Your task to perform on an android device: turn off javascript in the chrome app Image 0: 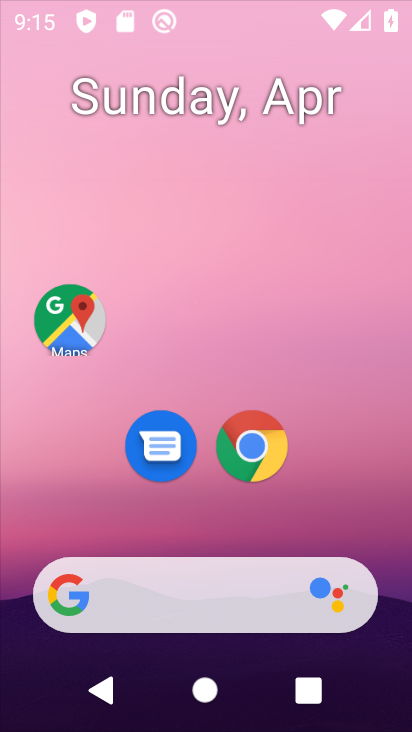
Step 0: click (288, 74)
Your task to perform on an android device: turn off javascript in the chrome app Image 1: 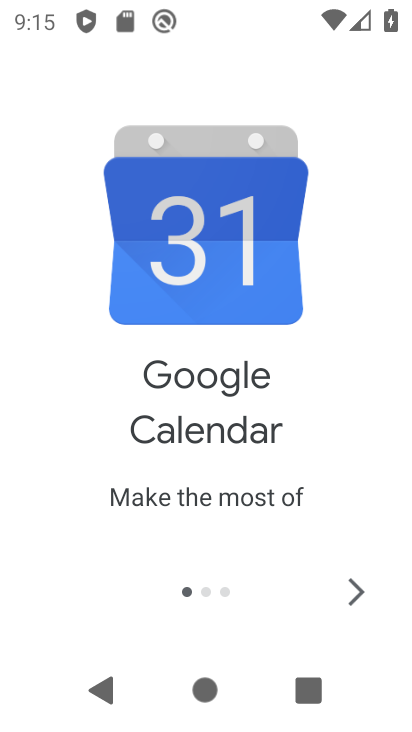
Step 1: click (353, 581)
Your task to perform on an android device: turn off javascript in the chrome app Image 2: 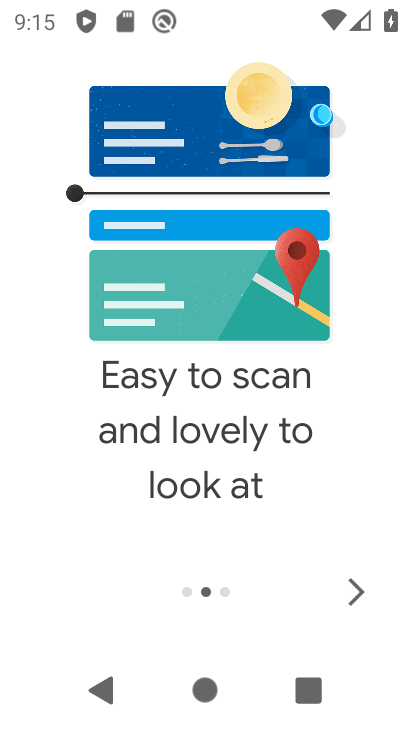
Step 2: click (353, 581)
Your task to perform on an android device: turn off javascript in the chrome app Image 3: 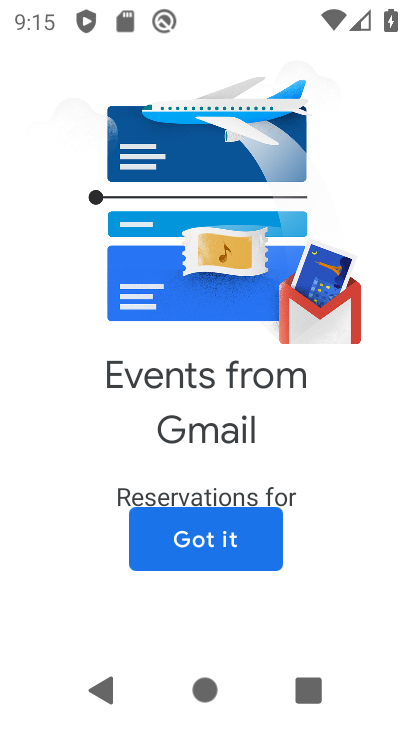
Step 3: press home button
Your task to perform on an android device: turn off javascript in the chrome app Image 4: 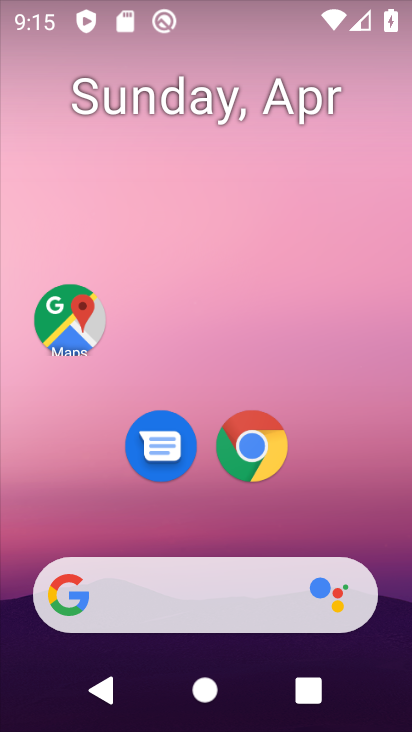
Step 4: click (263, 446)
Your task to perform on an android device: turn off javascript in the chrome app Image 5: 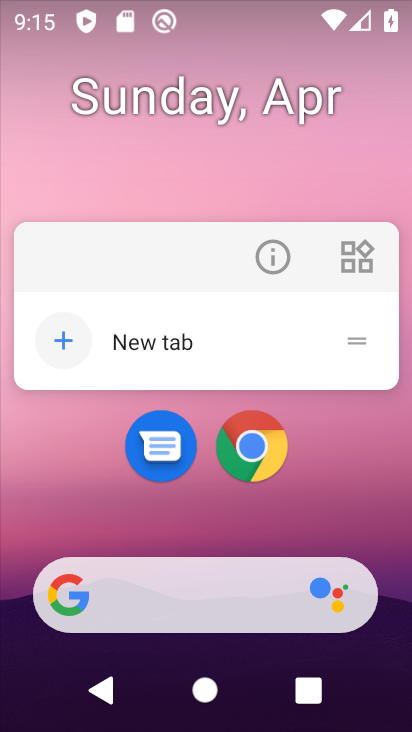
Step 5: click (277, 268)
Your task to perform on an android device: turn off javascript in the chrome app Image 6: 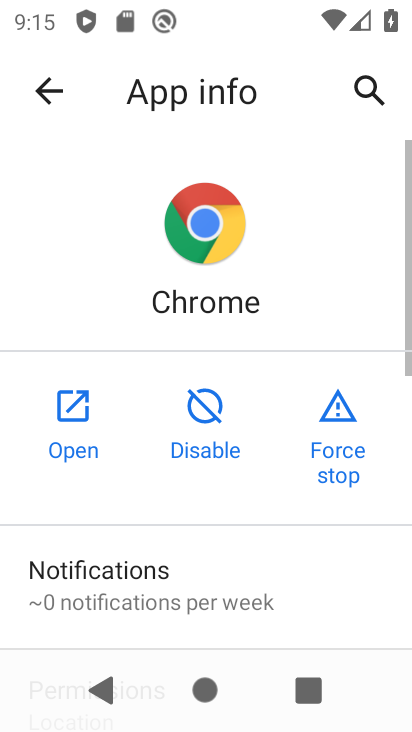
Step 6: click (69, 422)
Your task to perform on an android device: turn off javascript in the chrome app Image 7: 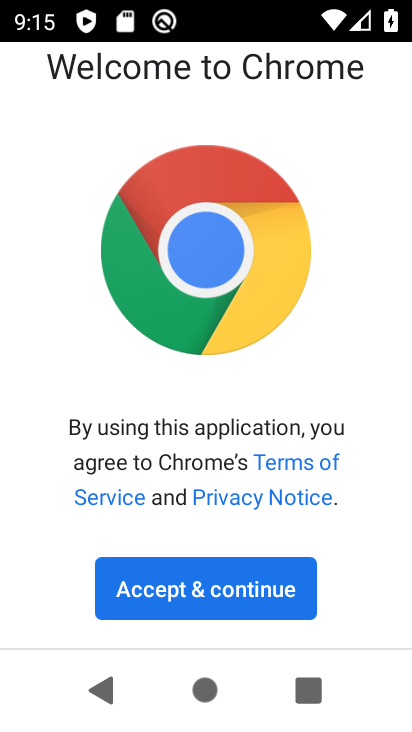
Step 7: click (185, 562)
Your task to perform on an android device: turn off javascript in the chrome app Image 8: 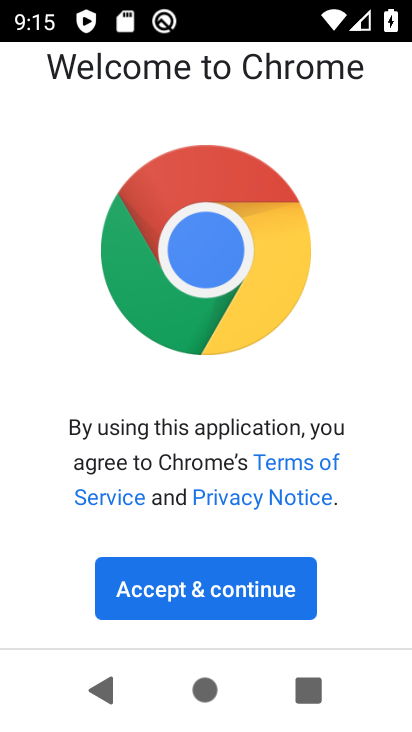
Step 8: click (184, 568)
Your task to perform on an android device: turn off javascript in the chrome app Image 9: 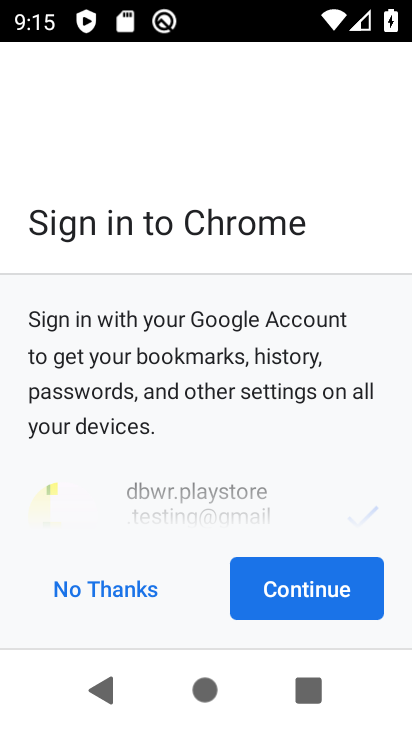
Step 9: click (124, 586)
Your task to perform on an android device: turn off javascript in the chrome app Image 10: 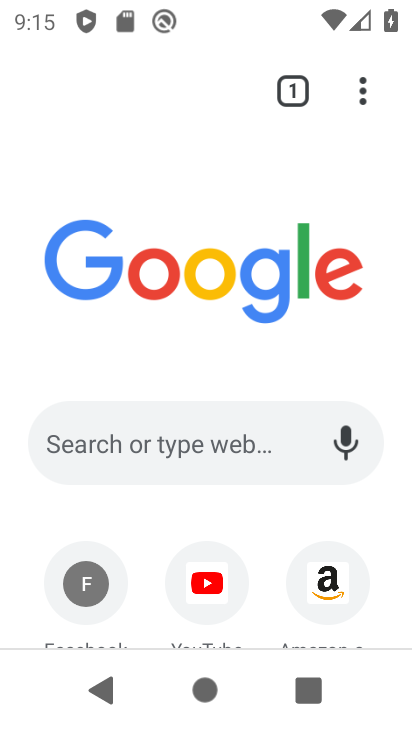
Step 10: drag from (359, 104) to (223, 463)
Your task to perform on an android device: turn off javascript in the chrome app Image 11: 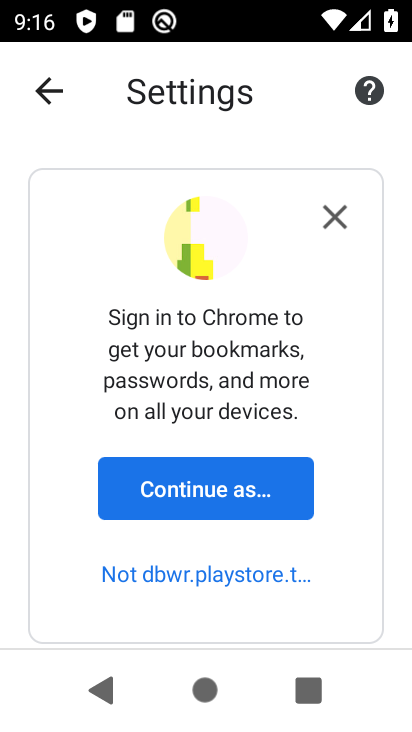
Step 11: click (332, 226)
Your task to perform on an android device: turn off javascript in the chrome app Image 12: 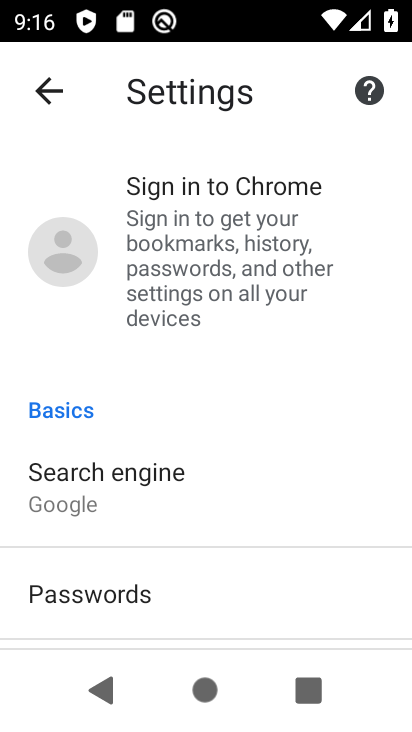
Step 12: drag from (273, 518) to (355, 0)
Your task to perform on an android device: turn off javascript in the chrome app Image 13: 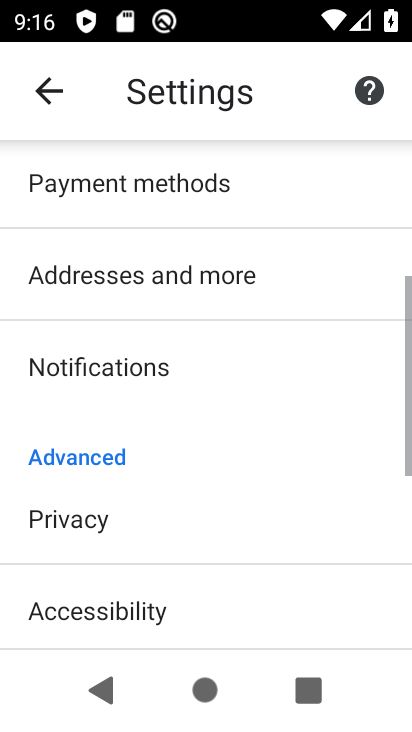
Step 13: drag from (186, 613) to (253, 275)
Your task to perform on an android device: turn off javascript in the chrome app Image 14: 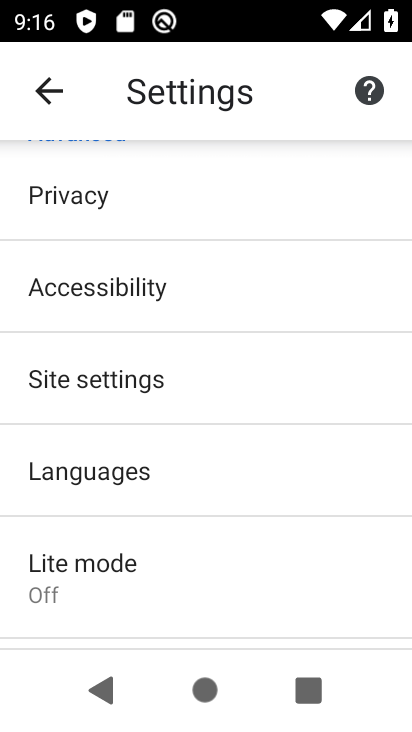
Step 14: click (157, 385)
Your task to perform on an android device: turn off javascript in the chrome app Image 15: 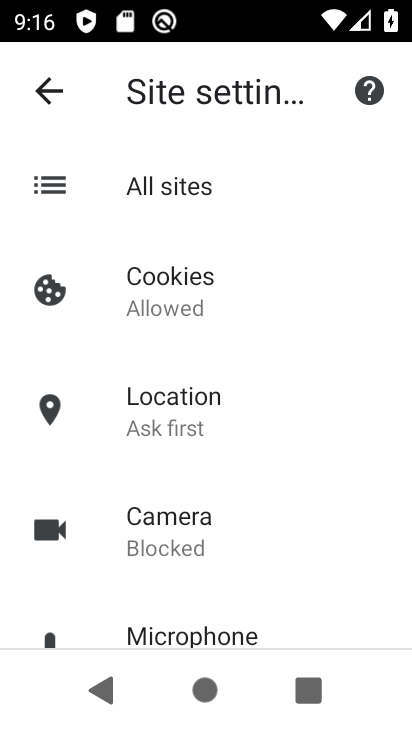
Step 15: drag from (191, 543) to (261, 109)
Your task to perform on an android device: turn off javascript in the chrome app Image 16: 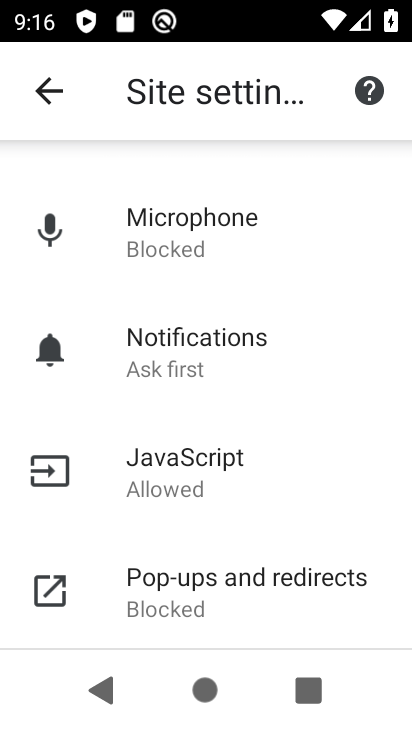
Step 16: click (202, 444)
Your task to perform on an android device: turn off javascript in the chrome app Image 17: 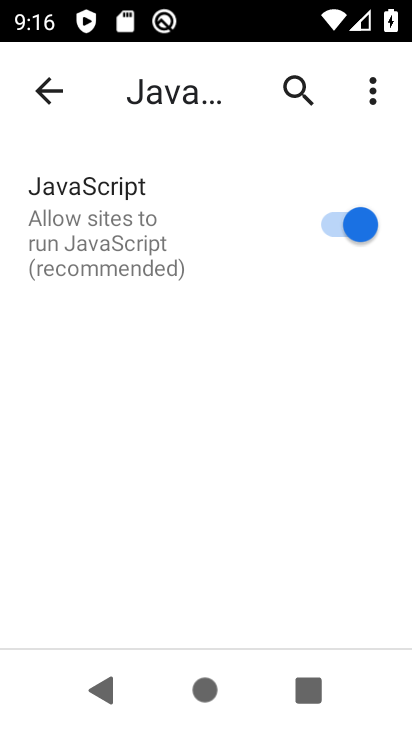
Step 17: click (355, 228)
Your task to perform on an android device: turn off javascript in the chrome app Image 18: 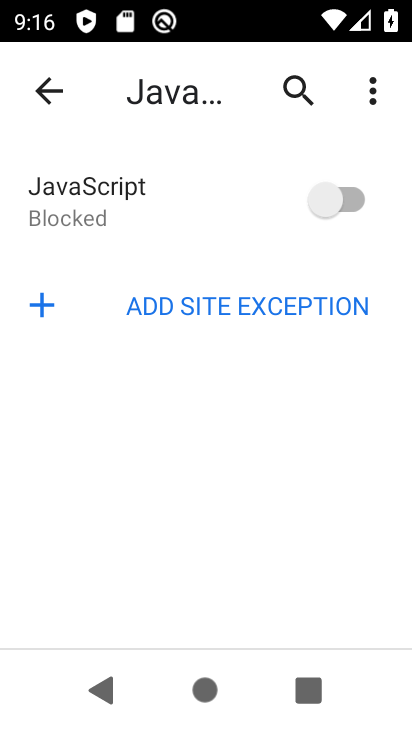
Step 18: task complete